Your task to perform on an android device: delete browsing data in the chrome app Image 0: 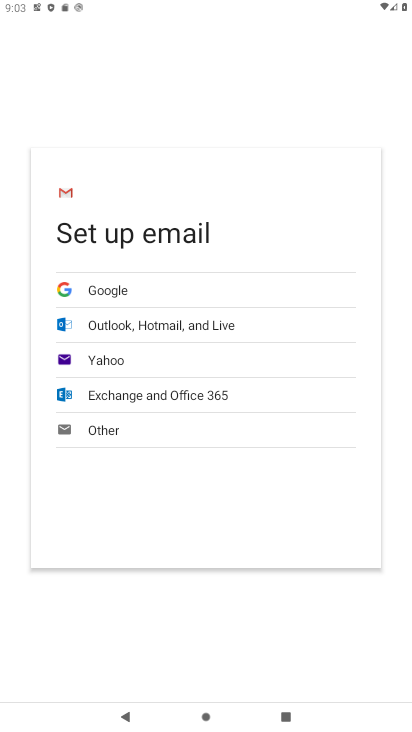
Step 0: press home button
Your task to perform on an android device: delete browsing data in the chrome app Image 1: 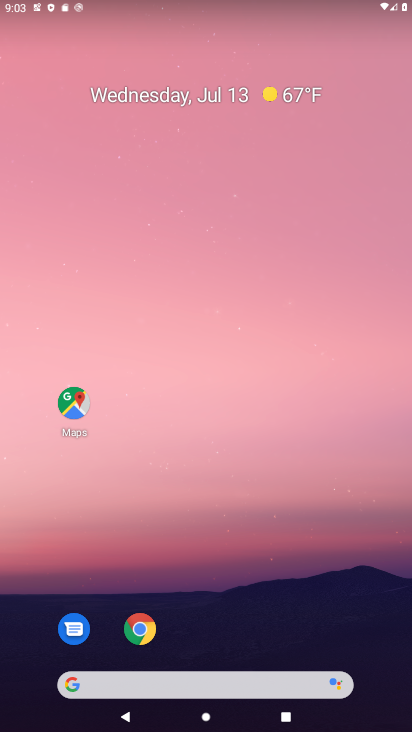
Step 1: click (147, 629)
Your task to perform on an android device: delete browsing data in the chrome app Image 2: 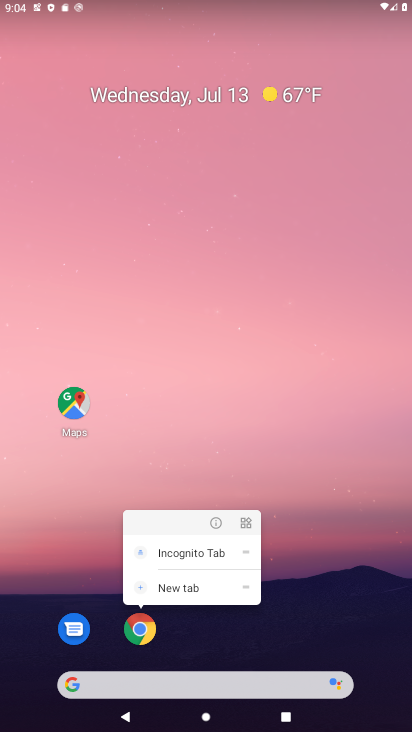
Step 2: click (142, 632)
Your task to perform on an android device: delete browsing data in the chrome app Image 3: 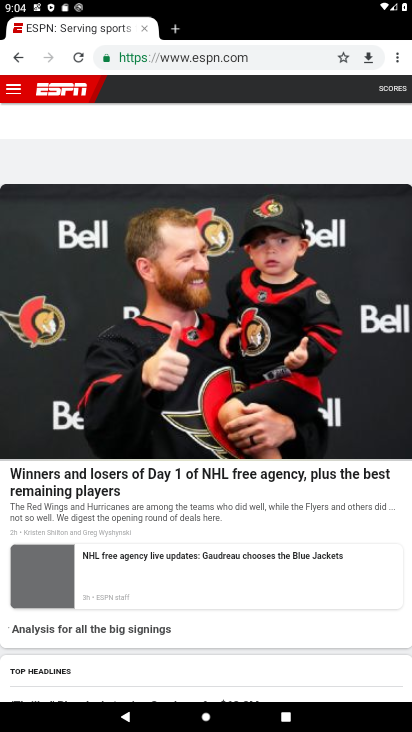
Step 3: click (399, 55)
Your task to perform on an android device: delete browsing data in the chrome app Image 4: 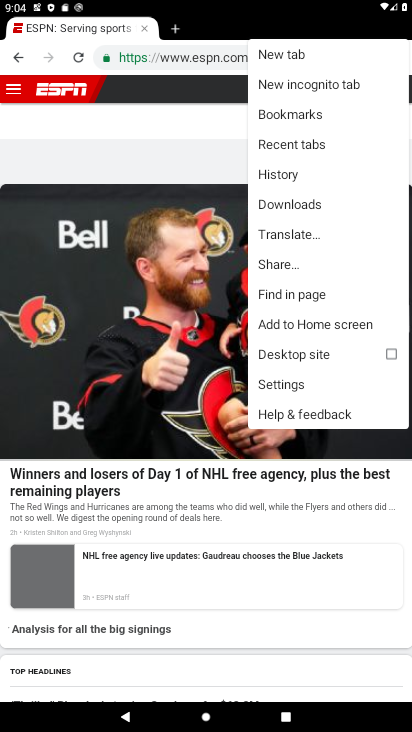
Step 4: click (279, 179)
Your task to perform on an android device: delete browsing data in the chrome app Image 5: 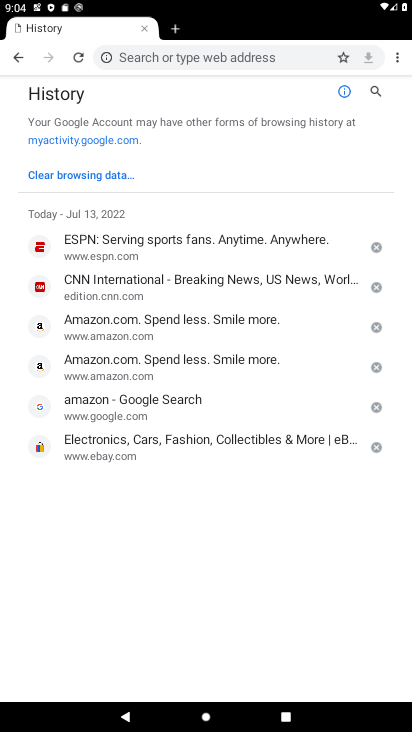
Step 5: click (105, 177)
Your task to perform on an android device: delete browsing data in the chrome app Image 6: 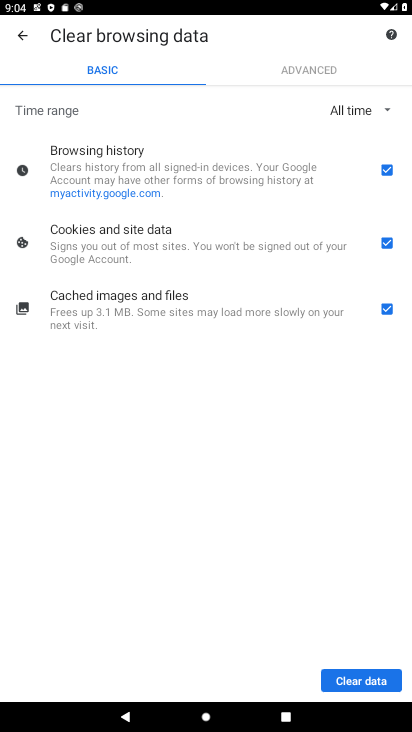
Step 6: click (352, 674)
Your task to perform on an android device: delete browsing data in the chrome app Image 7: 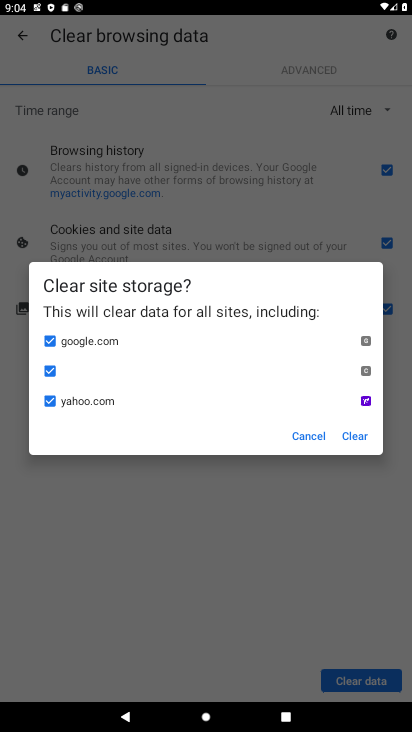
Step 7: click (360, 431)
Your task to perform on an android device: delete browsing data in the chrome app Image 8: 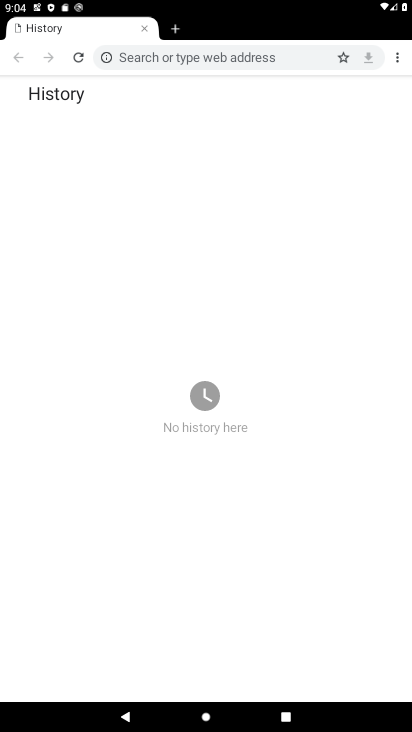
Step 8: task complete